Your task to perform on an android device: open app "Microsoft Excel" Image 0: 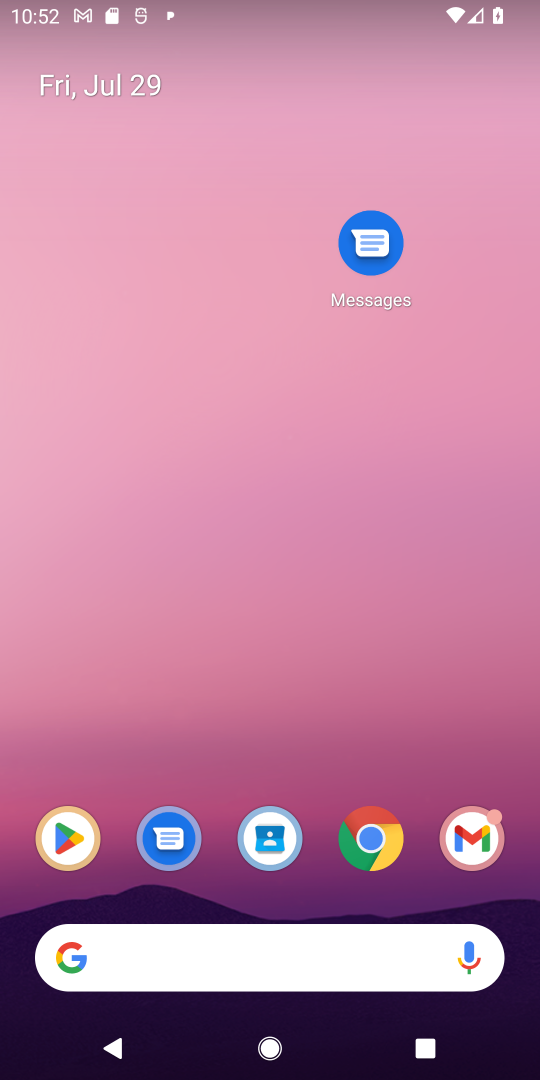
Step 0: click (91, 839)
Your task to perform on an android device: open app "Microsoft Excel" Image 1: 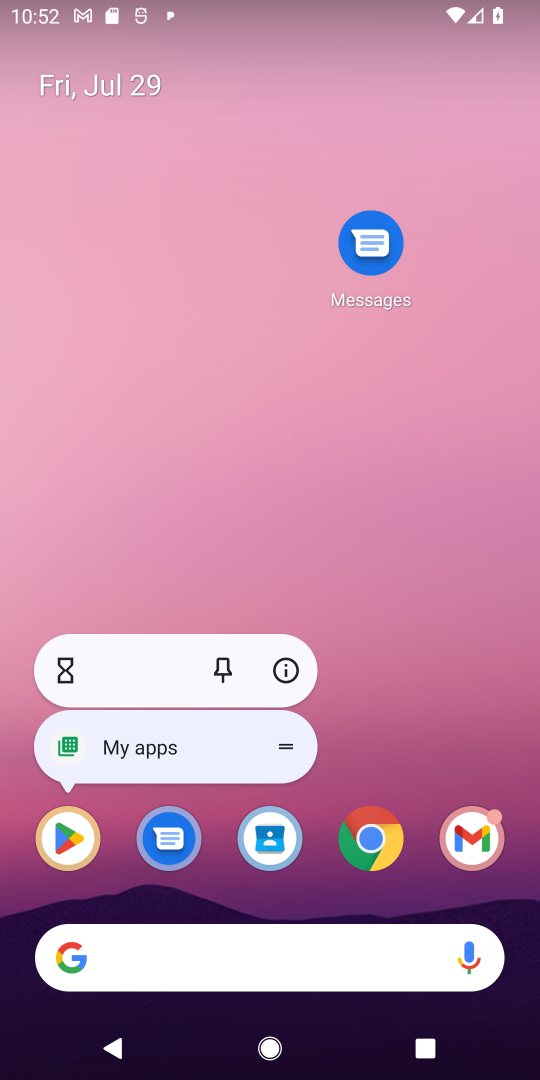
Step 1: click (91, 839)
Your task to perform on an android device: open app "Microsoft Excel" Image 2: 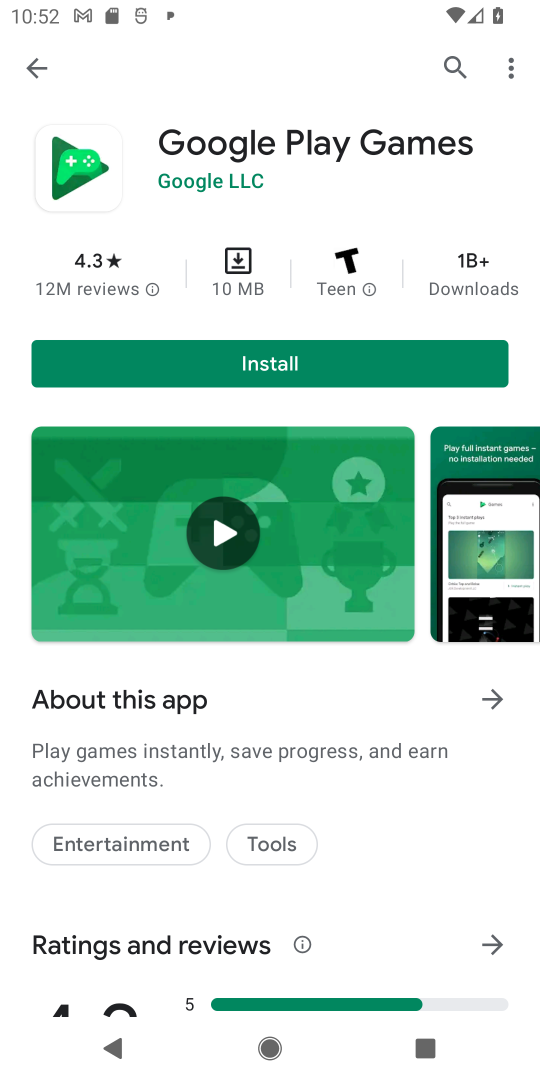
Step 2: click (24, 64)
Your task to perform on an android device: open app "Microsoft Excel" Image 3: 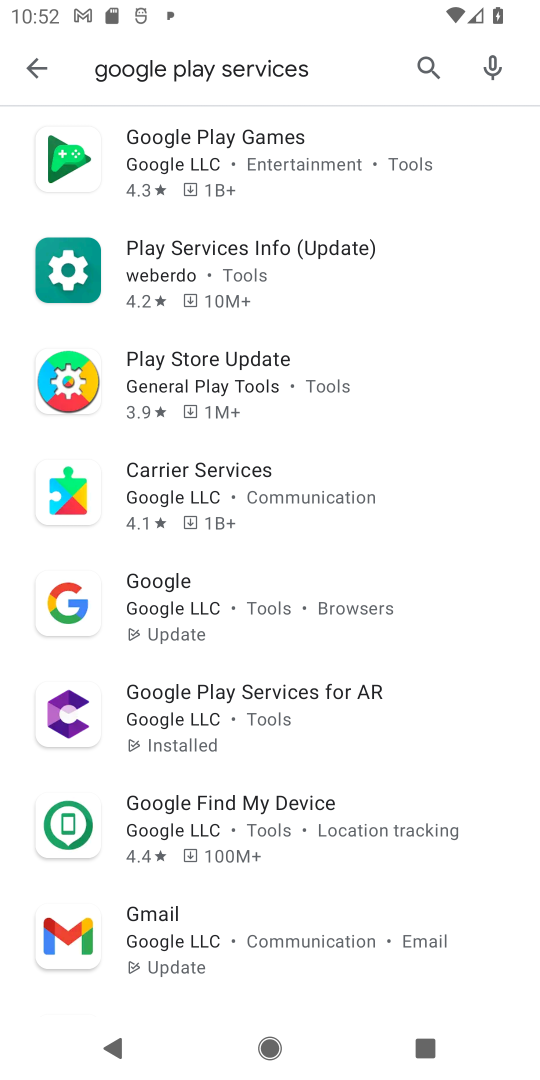
Step 3: click (247, 69)
Your task to perform on an android device: open app "Microsoft Excel" Image 4: 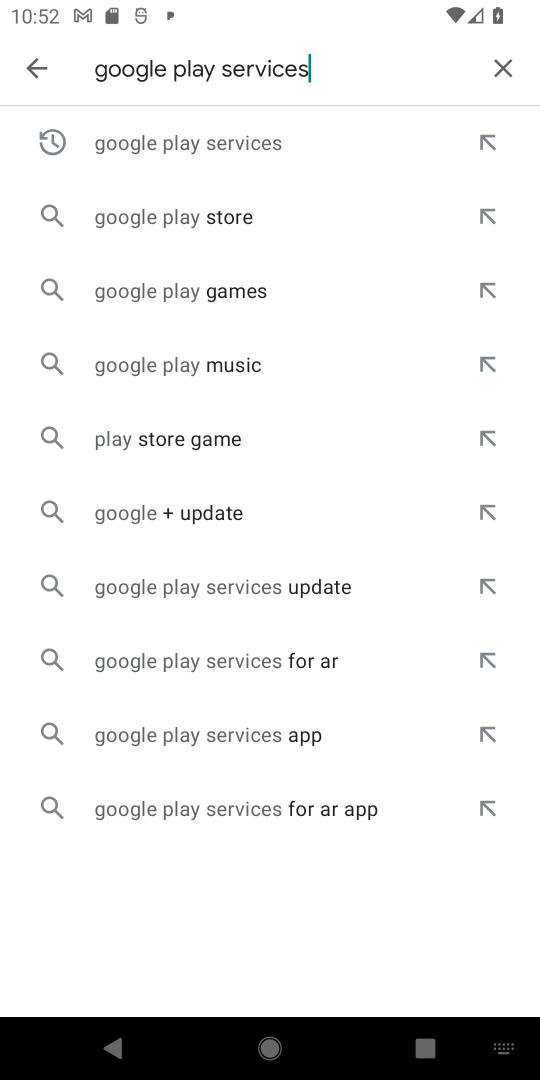
Step 4: click (504, 60)
Your task to perform on an android device: open app "Microsoft Excel" Image 5: 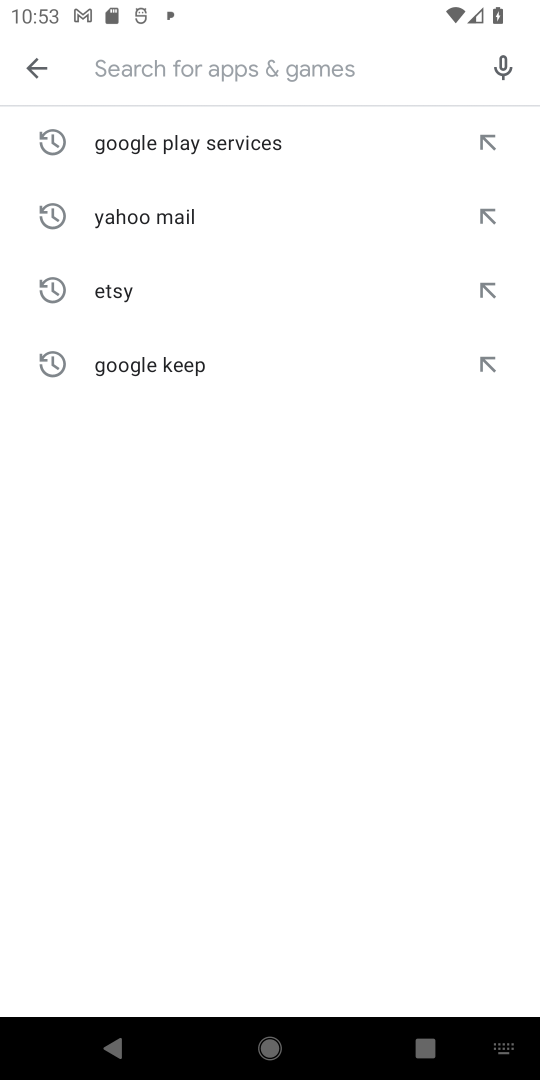
Step 5: type "microsoft Excel"
Your task to perform on an android device: open app "Microsoft Excel" Image 6: 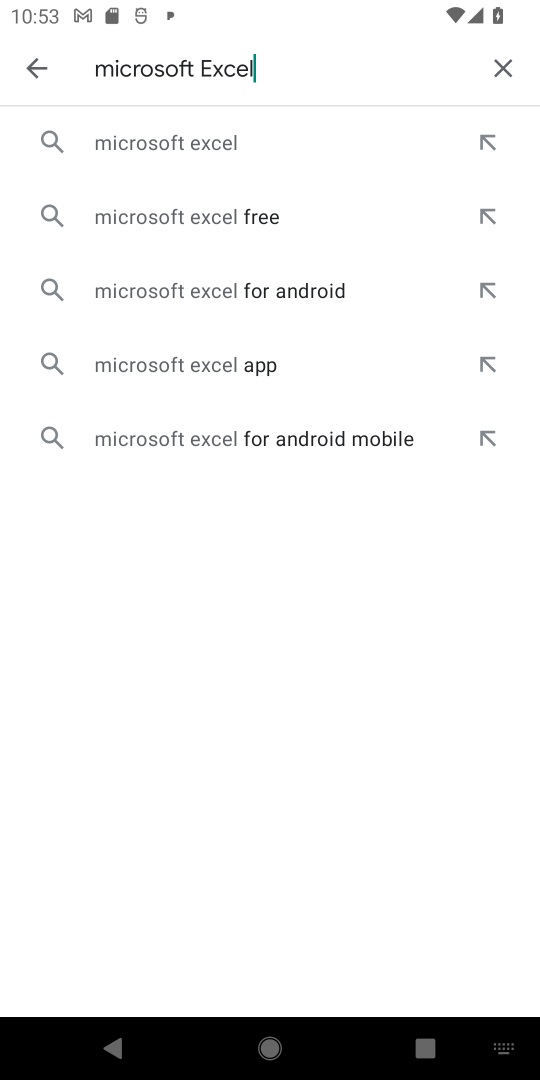
Step 6: click (179, 130)
Your task to perform on an android device: open app "Microsoft Excel" Image 7: 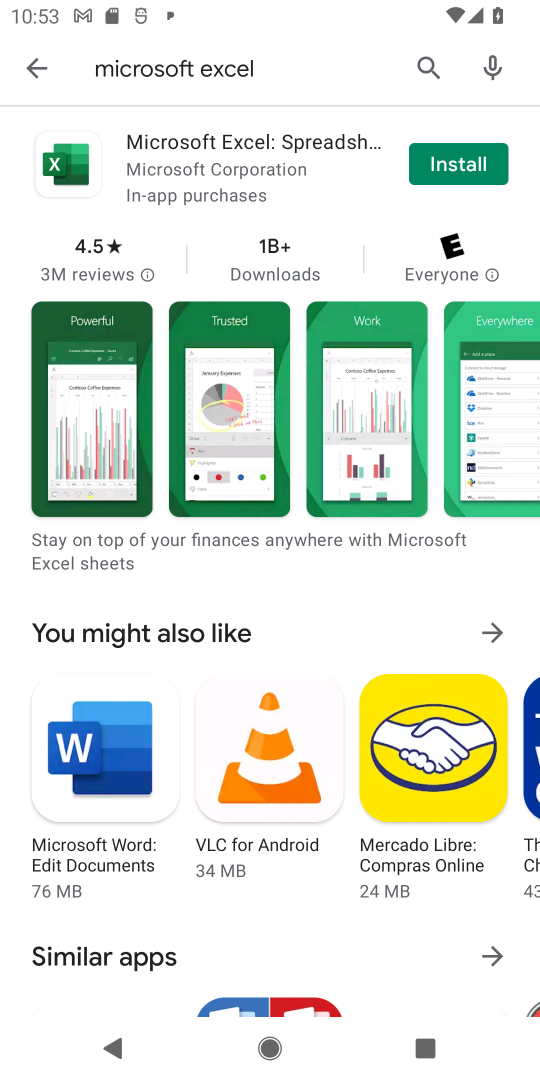
Step 7: task complete